Your task to perform on an android device: turn off sleep mode Image 0: 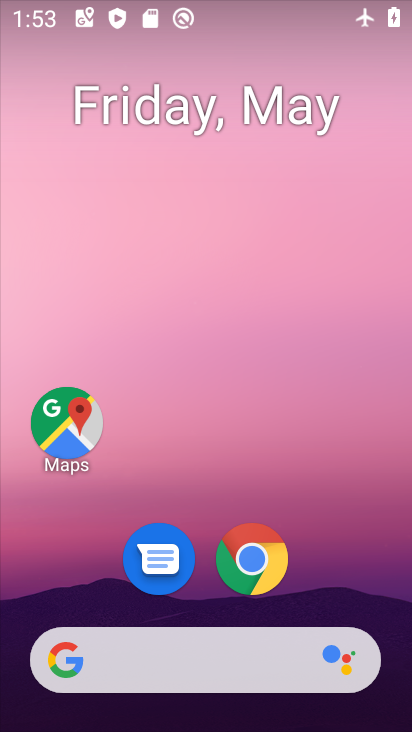
Step 0: drag from (319, 589) to (303, 214)
Your task to perform on an android device: turn off sleep mode Image 1: 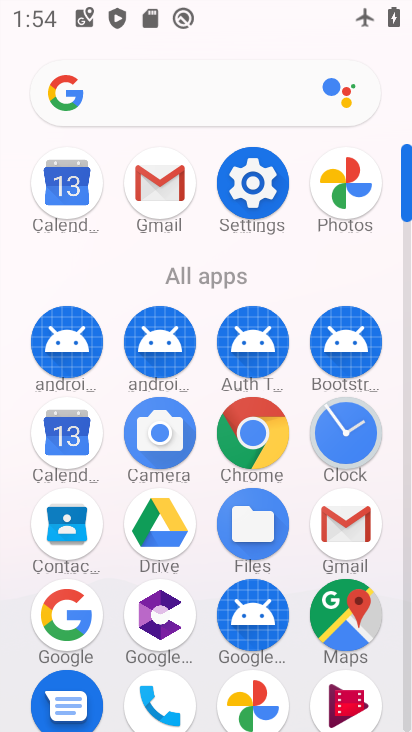
Step 1: click (257, 183)
Your task to perform on an android device: turn off sleep mode Image 2: 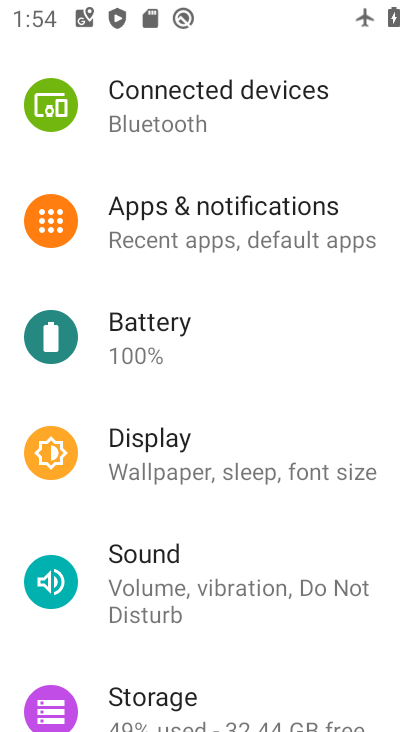
Step 2: click (233, 651)
Your task to perform on an android device: turn off sleep mode Image 3: 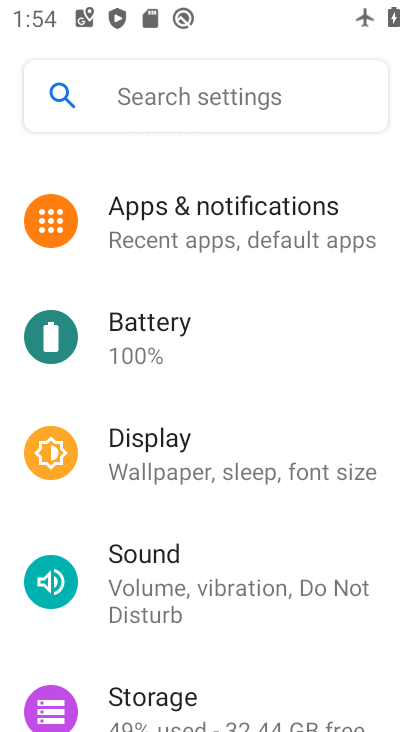
Step 3: drag from (230, 321) to (237, 570)
Your task to perform on an android device: turn off sleep mode Image 4: 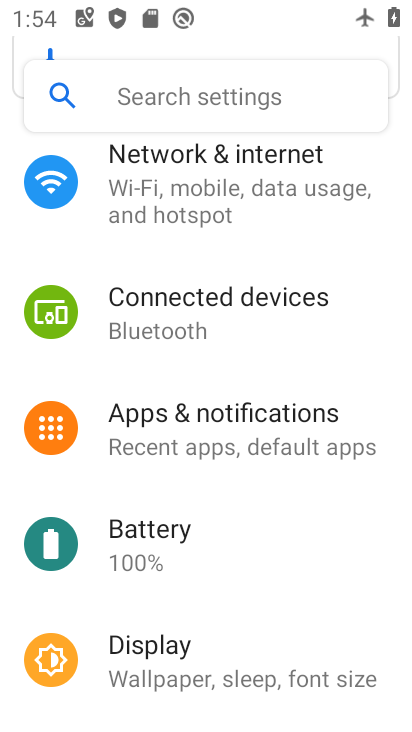
Step 4: drag from (233, 337) to (296, 237)
Your task to perform on an android device: turn off sleep mode Image 5: 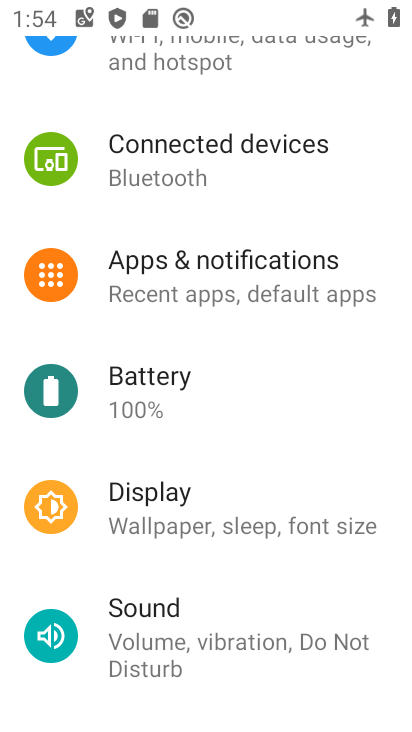
Step 5: click (205, 512)
Your task to perform on an android device: turn off sleep mode Image 6: 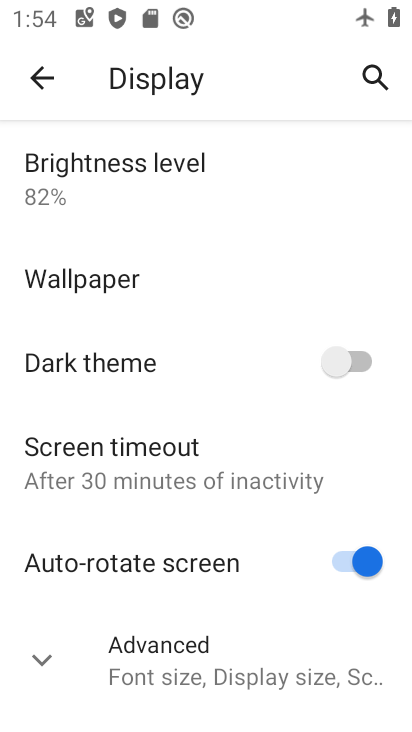
Step 6: drag from (233, 652) to (258, 261)
Your task to perform on an android device: turn off sleep mode Image 7: 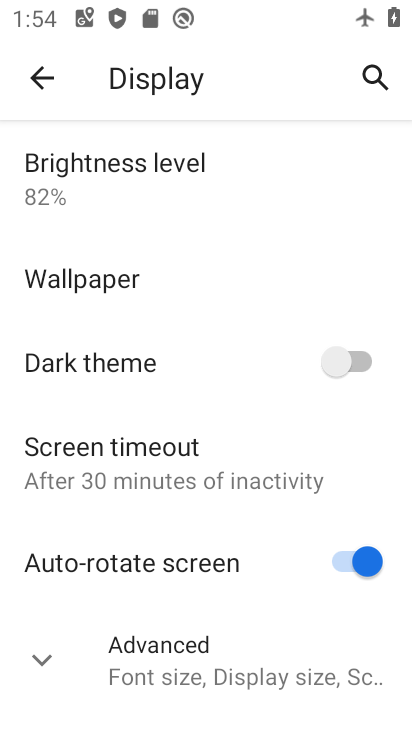
Step 7: click (35, 663)
Your task to perform on an android device: turn off sleep mode Image 8: 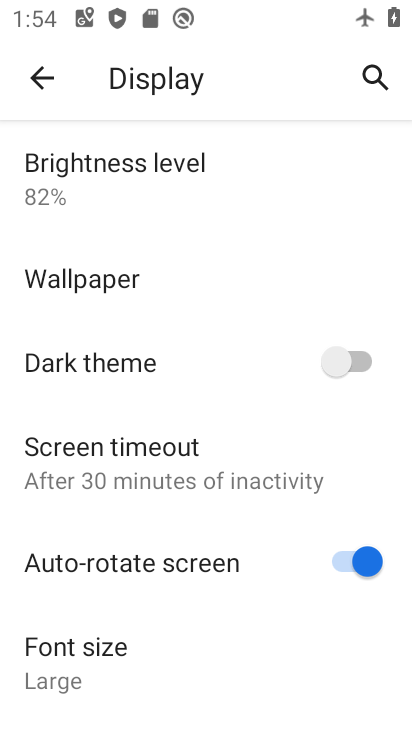
Step 8: task complete